Your task to perform on an android device: Go to eBay Image 0: 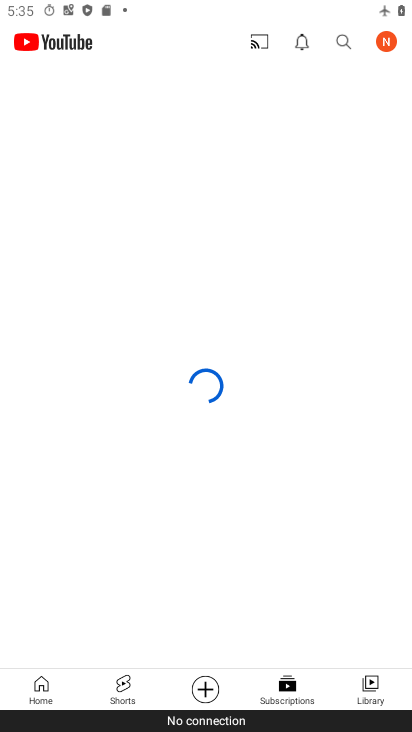
Step 0: press home button
Your task to perform on an android device: Go to eBay Image 1: 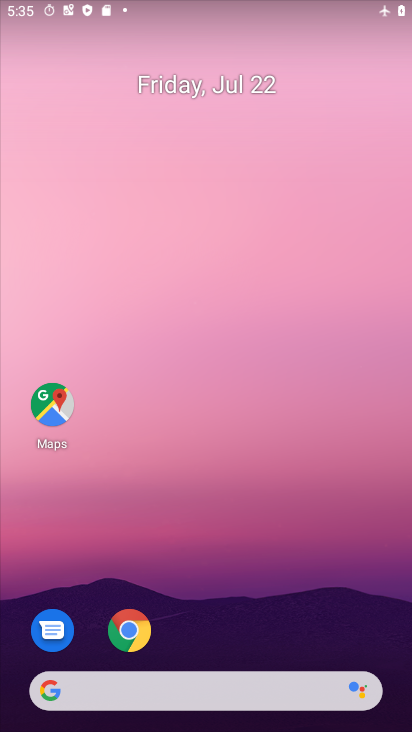
Step 1: drag from (220, 689) to (294, 57)
Your task to perform on an android device: Go to eBay Image 2: 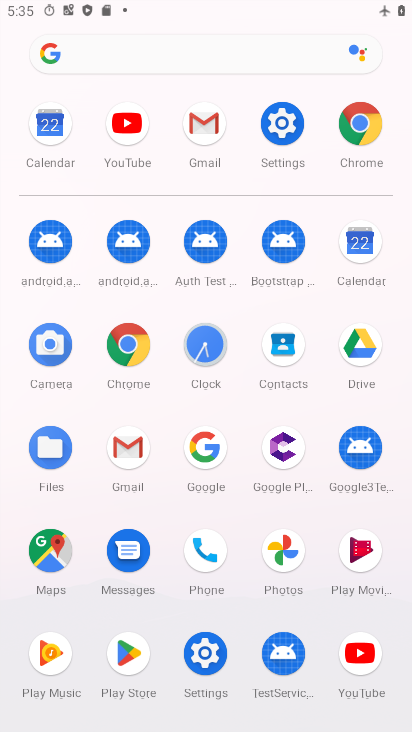
Step 2: click (132, 345)
Your task to perform on an android device: Go to eBay Image 3: 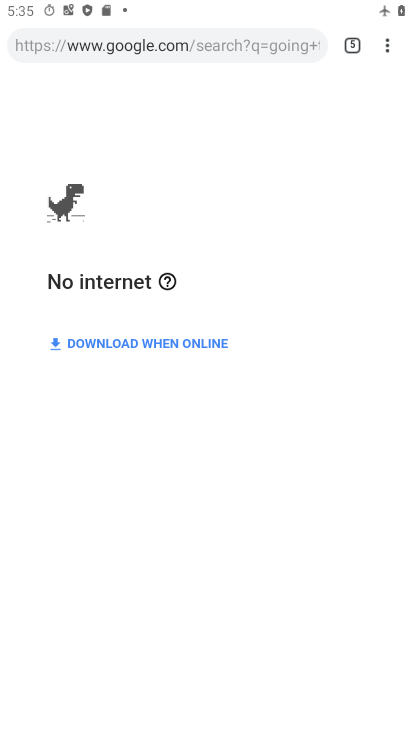
Step 3: drag from (194, 6) to (165, 555)
Your task to perform on an android device: Go to eBay Image 4: 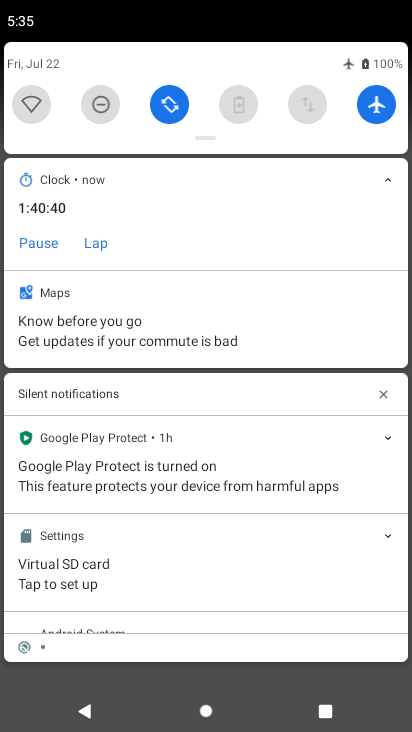
Step 4: drag from (200, 145) to (187, 561)
Your task to perform on an android device: Go to eBay Image 5: 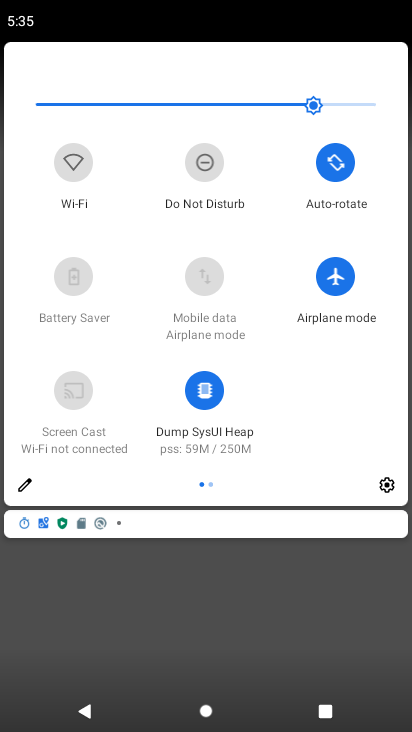
Step 5: click (338, 271)
Your task to perform on an android device: Go to eBay Image 6: 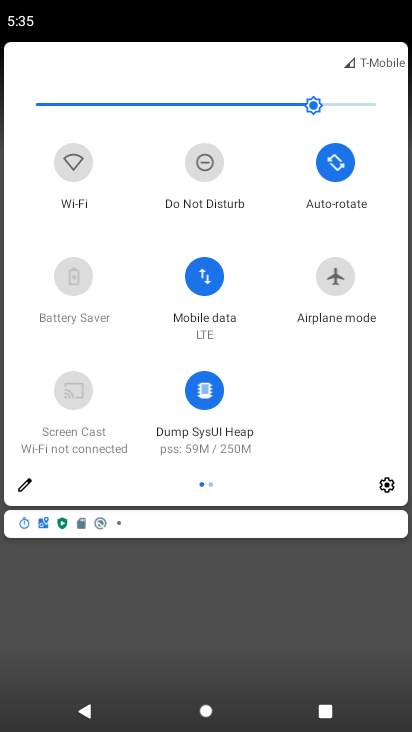
Step 6: task complete